Your task to perform on an android device: What's on my calendar tomorrow? Image 0: 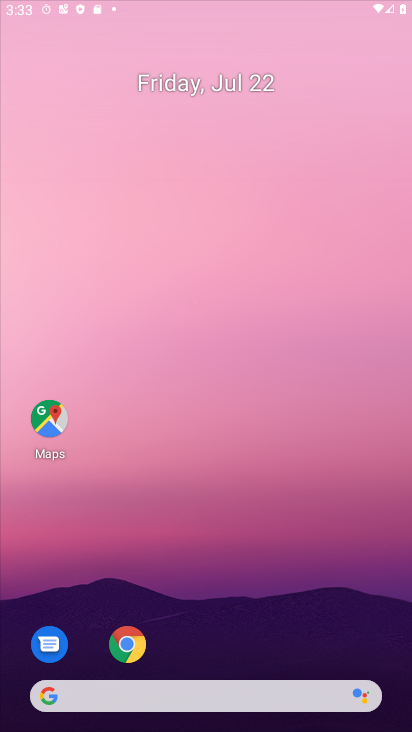
Step 0: press home button
Your task to perform on an android device: What's on my calendar tomorrow? Image 1: 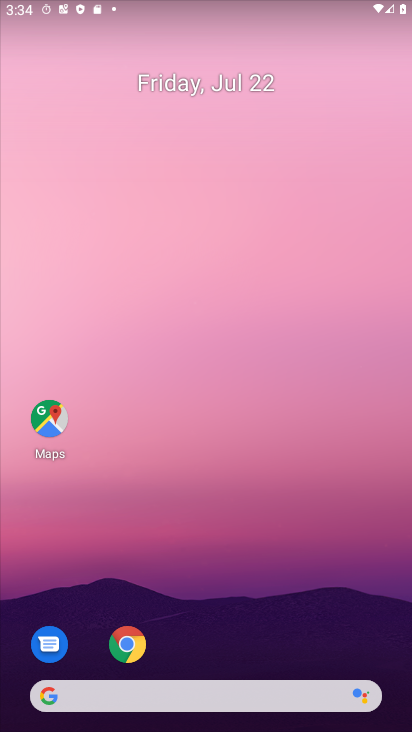
Step 1: drag from (253, 625) to (27, 16)
Your task to perform on an android device: What's on my calendar tomorrow? Image 2: 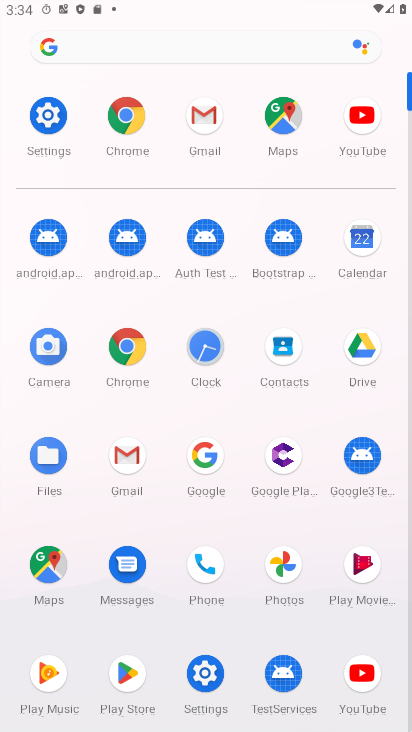
Step 2: click (363, 244)
Your task to perform on an android device: What's on my calendar tomorrow? Image 3: 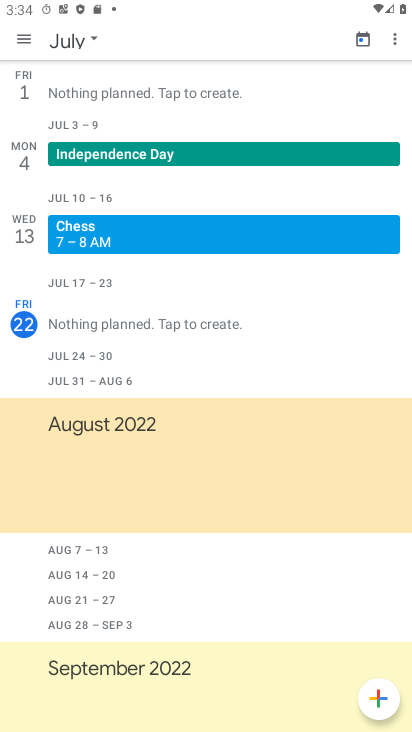
Step 3: click (81, 38)
Your task to perform on an android device: What's on my calendar tomorrow? Image 4: 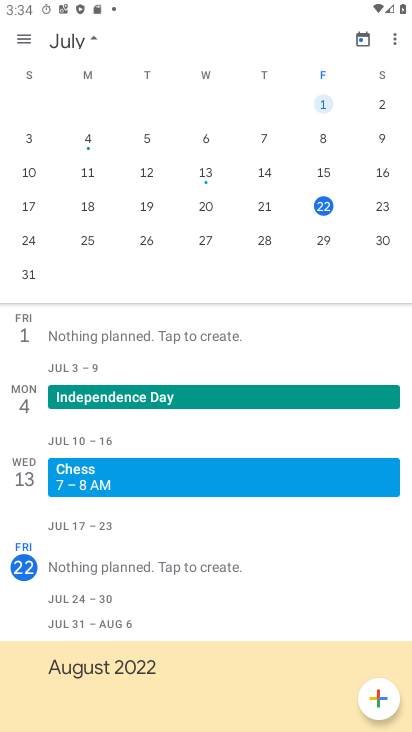
Step 4: click (388, 205)
Your task to perform on an android device: What's on my calendar tomorrow? Image 5: 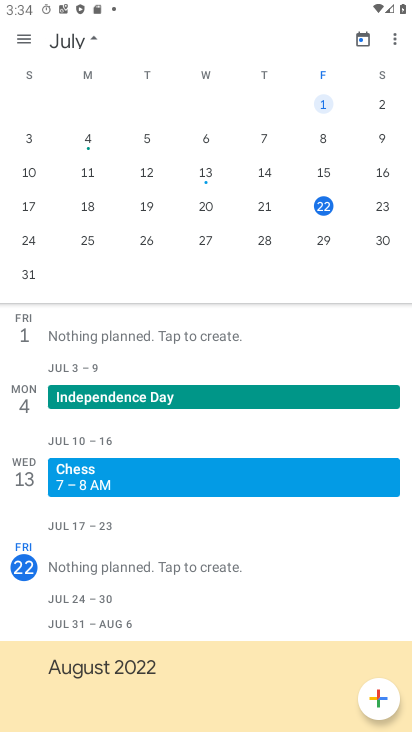
Step 5: click (381, 209)
Your task to perform on an android device: What's on my calendar tomorrow? Image 6: 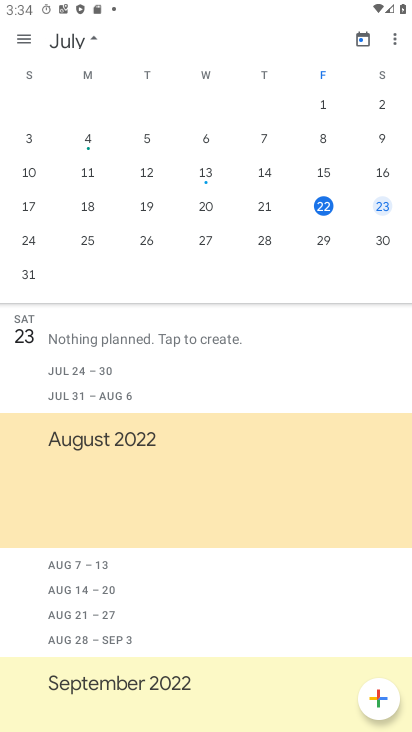
Step 6: task complete